Your task to perform on an android device: Open calendar and show me the third week of next month Image 0: 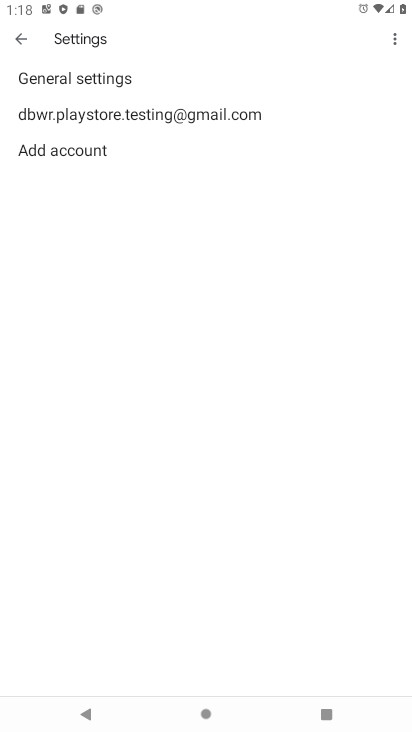
Step 0: press home button
Your task to perform on an android device: Open calendar and show me the third week of next month Image 1: 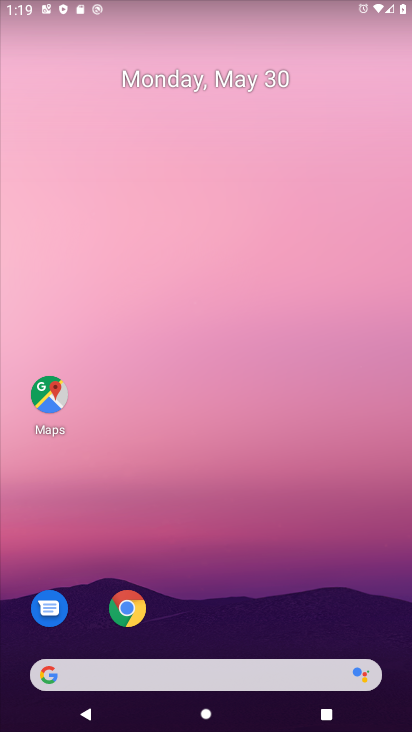
Step 1: drag from (243, 636) to (38, 2)
Your task to perform on an android device: Open calendar and show me the third week of next month Image 2: 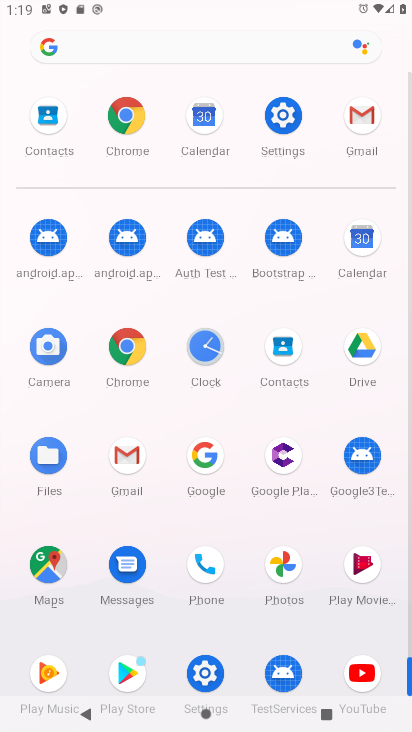
Step 2: click (210, 111)
Your task to perform on an android device: Open calendar and show me the third week of next month Image 3: 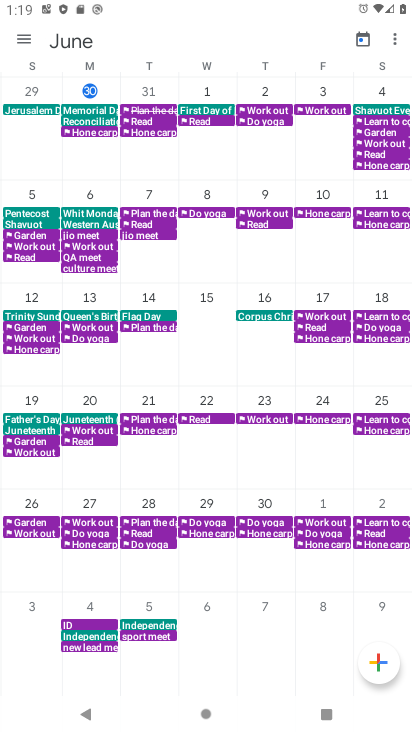
Step 3: click (27, 40)
Your task to perform on an android device: Open calendar and show me the third week of next month Image 4: 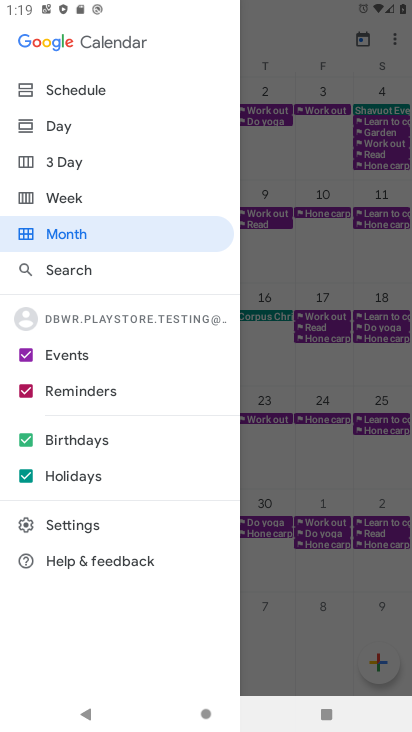
Step 4: click (60, 200)
Your task to perform on an android device: Open calendar and show me the third week of next month Image 5: 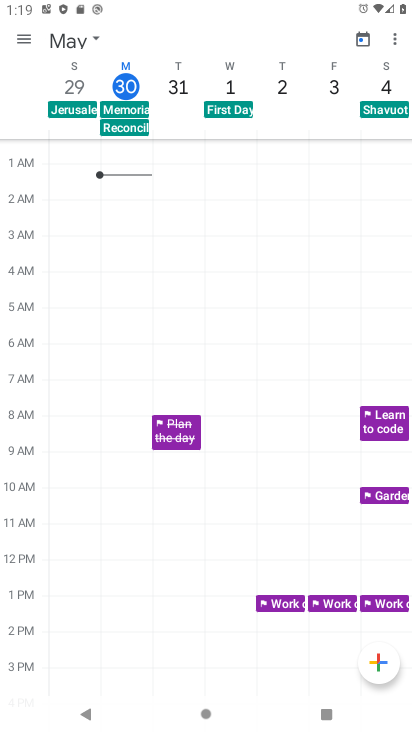
Step 5: click (85, 38)
Your task to perform on an android device: Open calendar and show me the third week of next month Image 6: 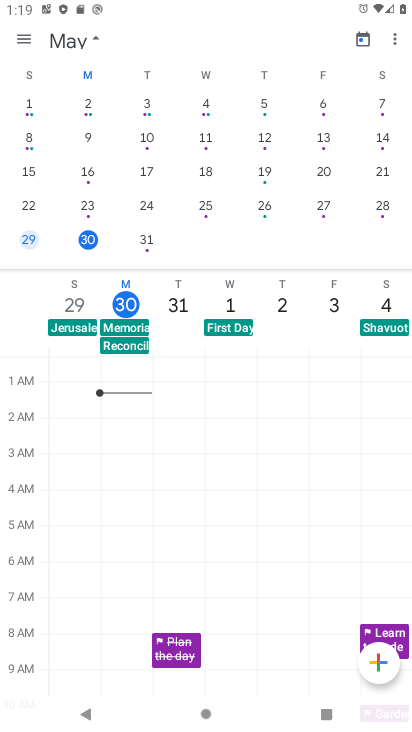
Step 6: drag from (368, 233) to (64, 206)
Your task to perform on an android device: Open calendar and show me the third week of next month Image 7: 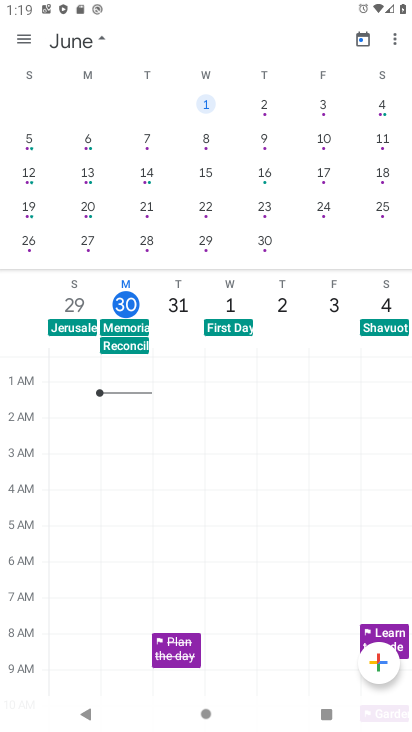
Step 7: click (203, 169)
Your task to perform on an android device: Open calendar and show me the third week of next month Image 8: 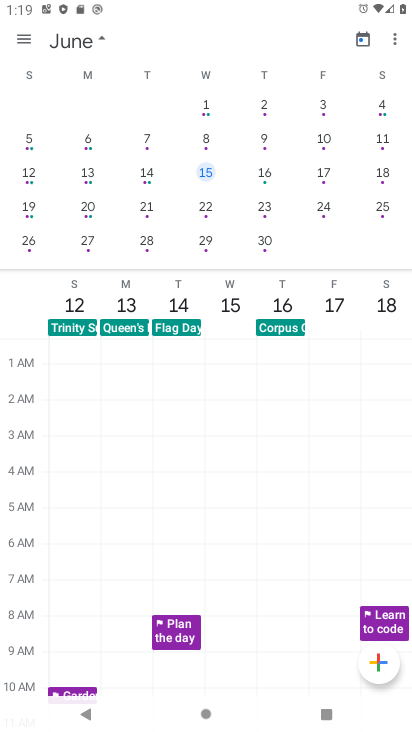
Step 8: task complete